Your task to perform on an android device: What's the weather going to be tomorrow? Image 0: 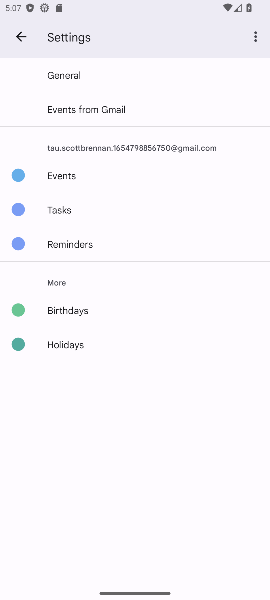
Step 0: press home button
Your task to perform on an android device: What's the weather going to be tomorrow? Image 1: 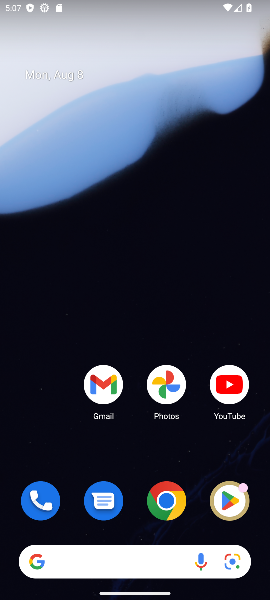
Step 1: click (64, 559)
Your task to perform on an android device: What's the weather going to be tomorrow? Image 2: 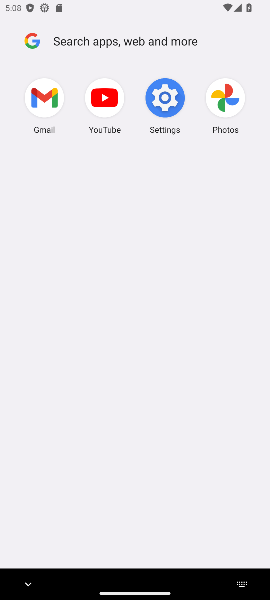
Step 2: type "What's the weather going to be tomorrow?"
Your task to perform on an android device: What's the weather going to be tomorrow? Image 3: 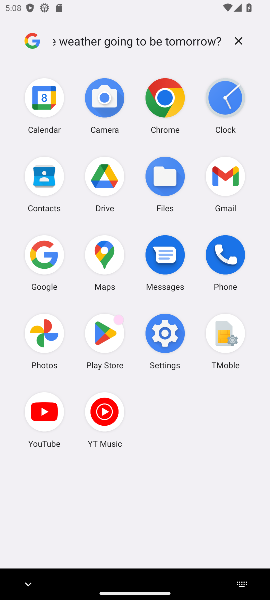
Step 3: type ""
Your task to perform on an android device: What's the weather going to be tomorrow? Image 4: 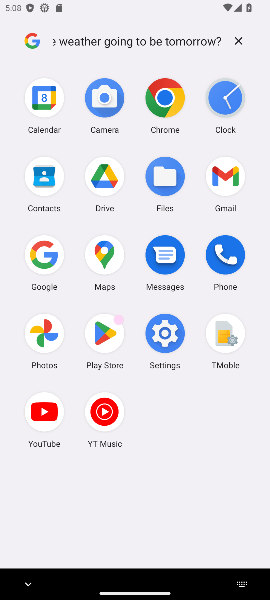
Step 4: type ""
Your task to perform on an android device: What's the weather going to be tomorrow? Image 5: 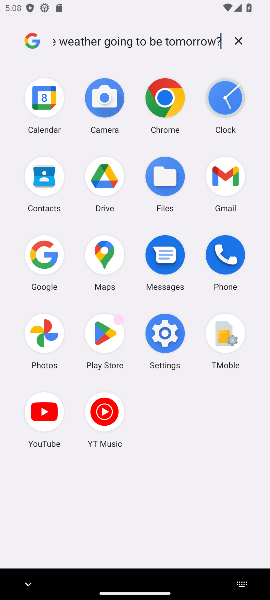
Step 5: task complete